Your task to perform on an android device: open app "Cash App" (install if not already installed), go to login, and select forgot password Image 0: 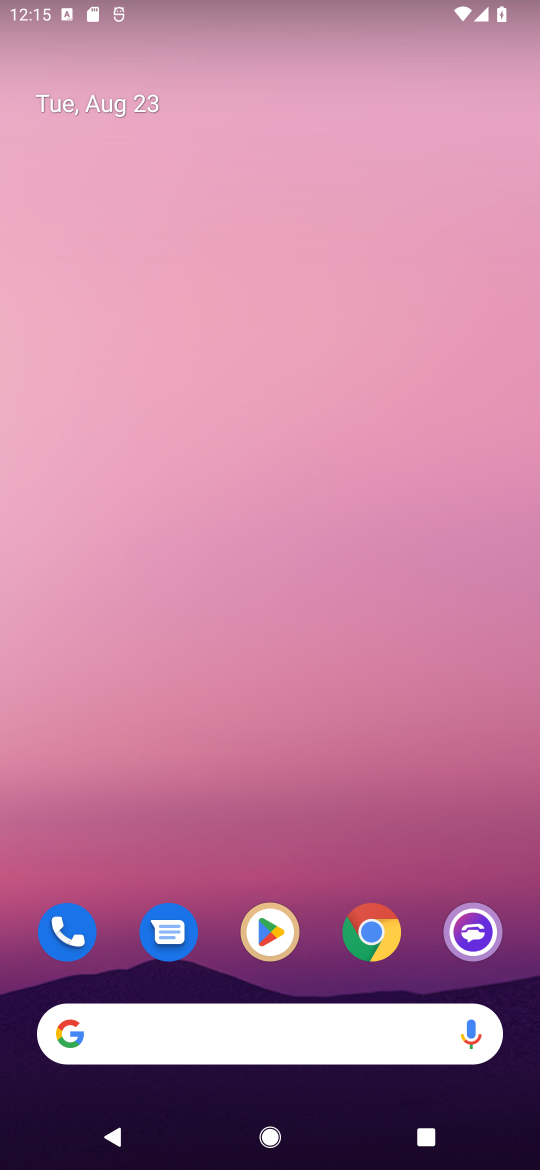
Step 0: click (270, 943)
Your task to perform on an android device: open app "Cash App" (install if not already installed), go to login, and select forgot password Image 1: 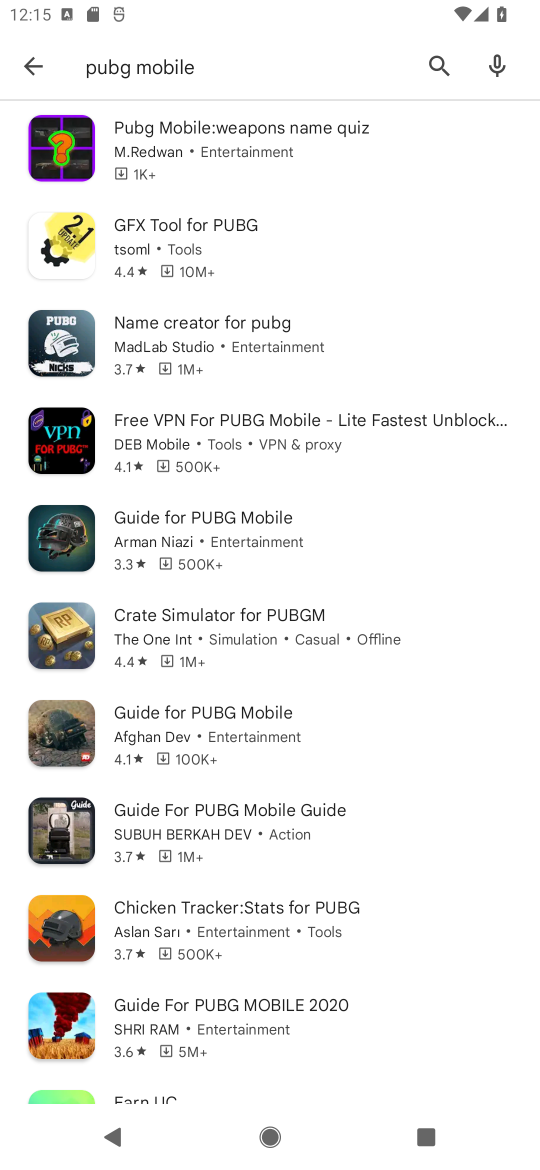
Step 1: click (438, 68)
Your task to perform on an android device: open app "Cash App" (install if not already installed), go to login, and select forgot password Image 2: 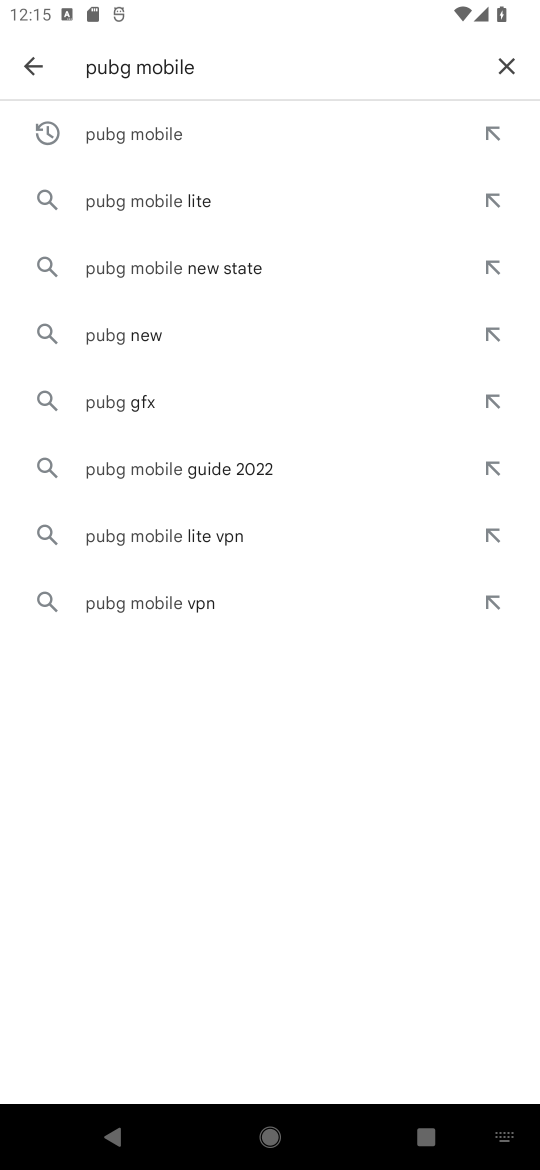
Step 2: click (504, 63)
Your task to perform on an android device: open app "Cash App" (install if not already installed), go to login, and select forgot password Image 3: 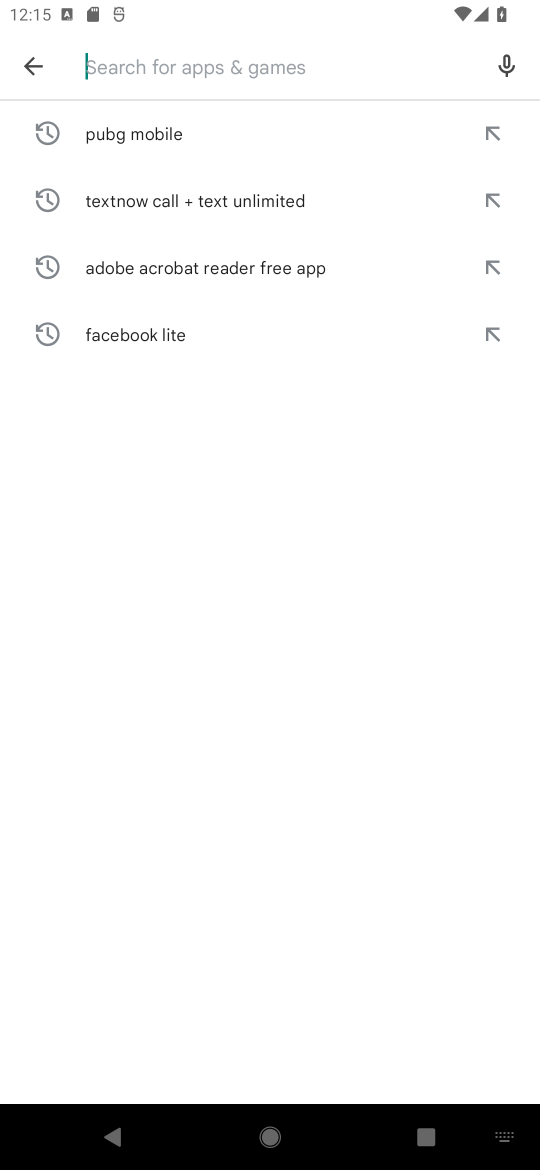
Step 3: click (105, 66)
Your task to perform on an android device: open app "Cash App" (install if not already installed), go to login, and select forgot password Image 4: 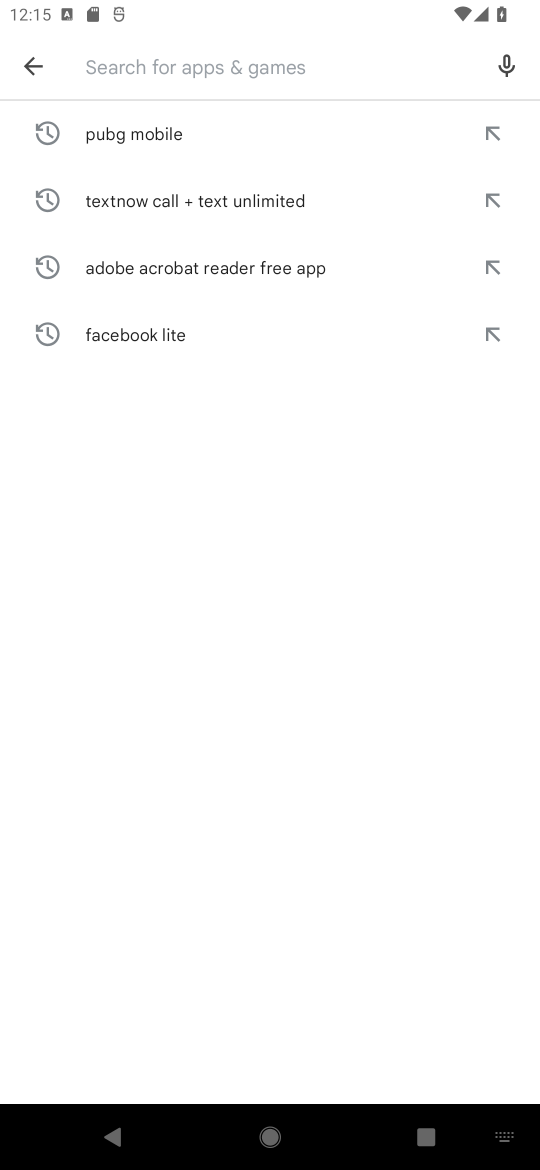
Step 4: type "cash app"
Your task to perform on an android device: open app "Cash App" (install if not already installed), go to login, and select forgot password Image 5: 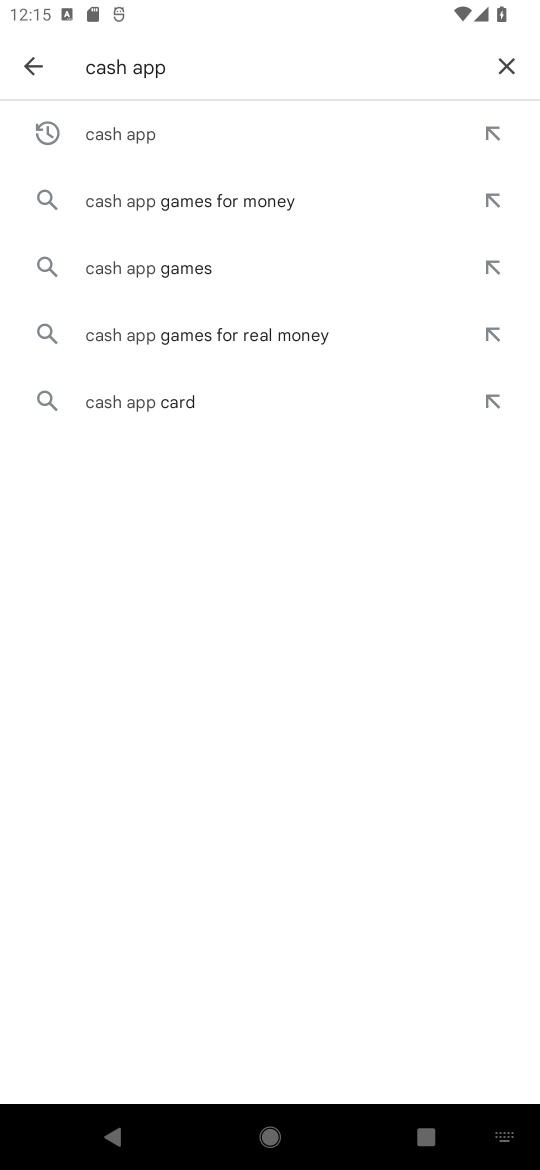
Step 5: click (158, 118)
Your task to perform on an android device: open app "Cash App" (install if not already installed), go to login, and select forgot password Image 6: 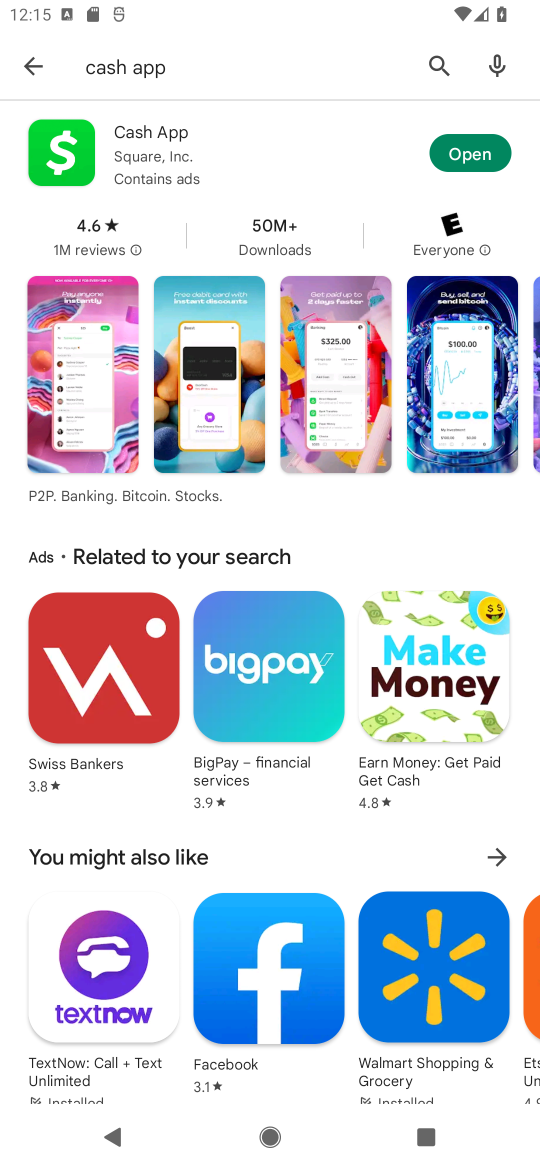
Step 6: click (494, 150)
Your task to perform on an android device: open app "Cash App" (install if not already installed), go to login, and select forgot password Image 7: 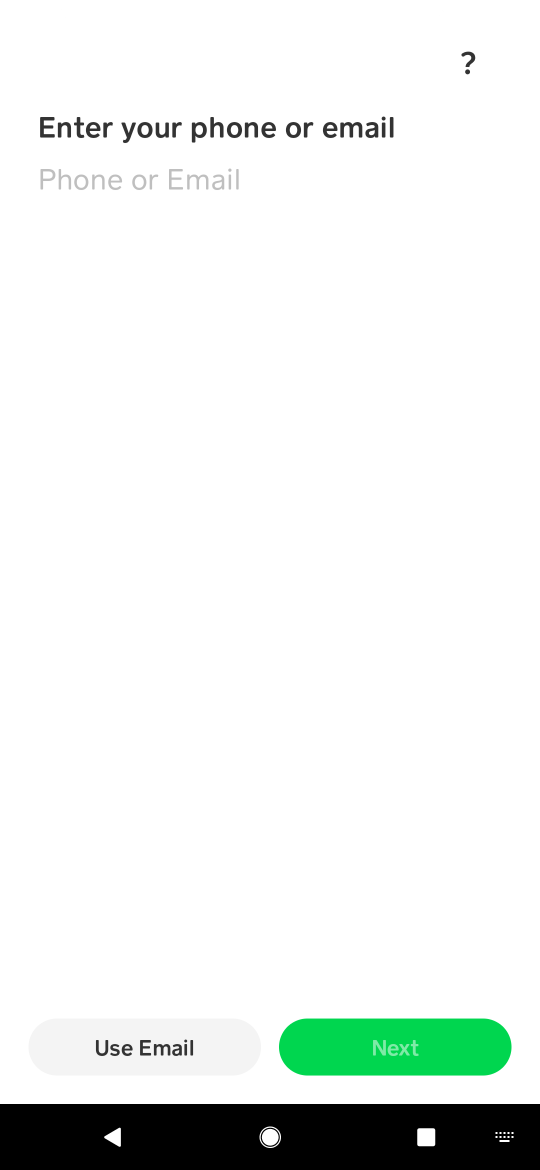
Step 7: click (162, 1043)
Your task to perform on an android device: open app "Cash App" (install if not already installed), go to login, and select forgot password Image 8: 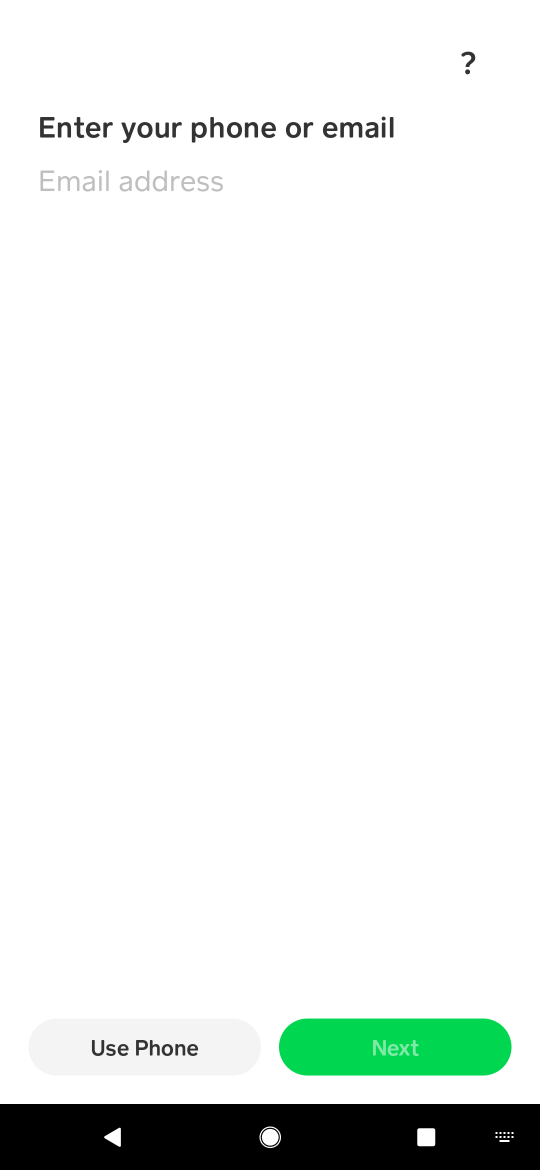
Step 8: task complete